Your task to perform on an android device: Go to CNN.com Image 0: 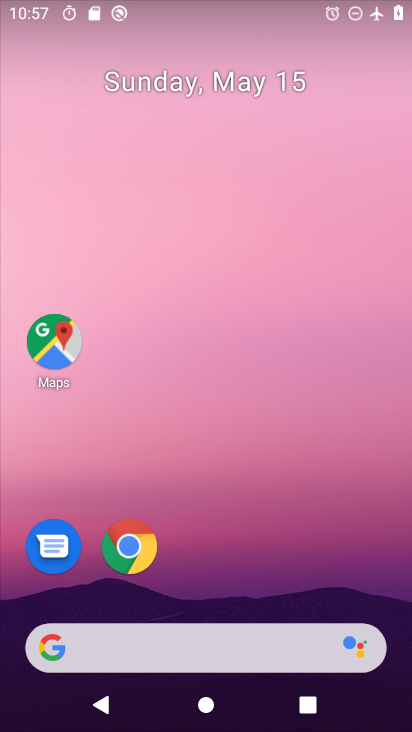
Step 0: click (133, 540)
Your task to perform on an android device: Go to CNN.com Image 1: 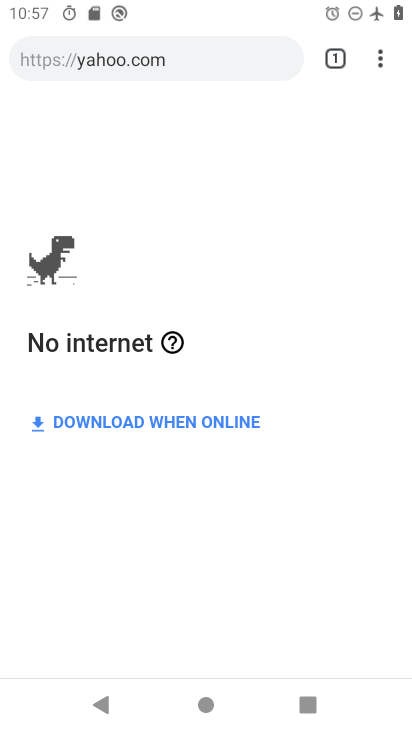
Step 1: click (219, 63)
Your task to perform on an android device: Go to CNN.com Image 2: 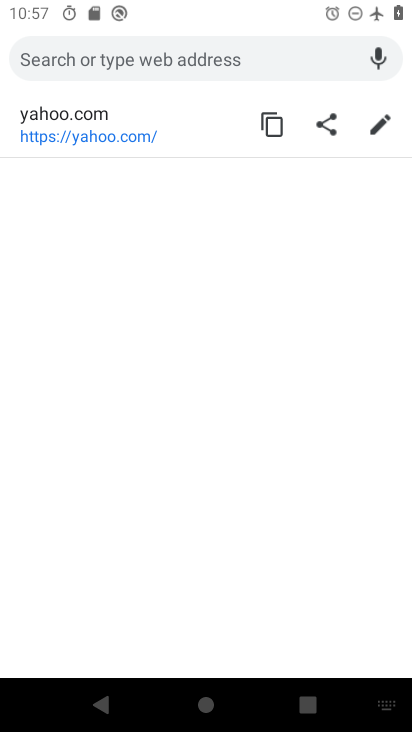
Step 2: type "cnn.com"
Your task to perform on an android device: Go to CNN.com Image 3: 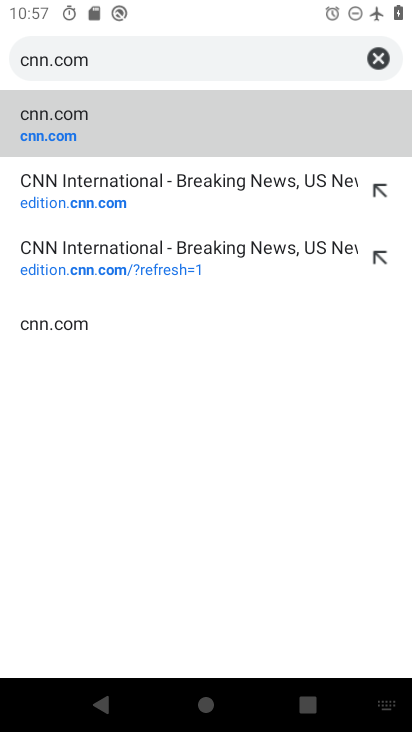
Step 3: click (74, 135)
Your task to perform on an android device: Go to CNN.com Image 4: 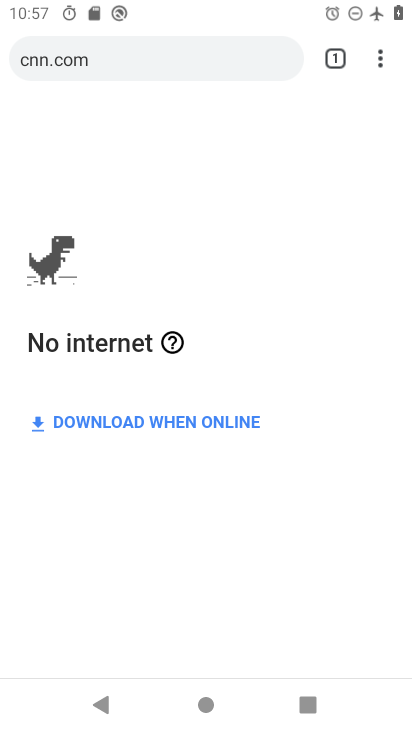
Step 4: task complete